Your task to perform on an android device: turn on data saver in the chrome app Image 0: 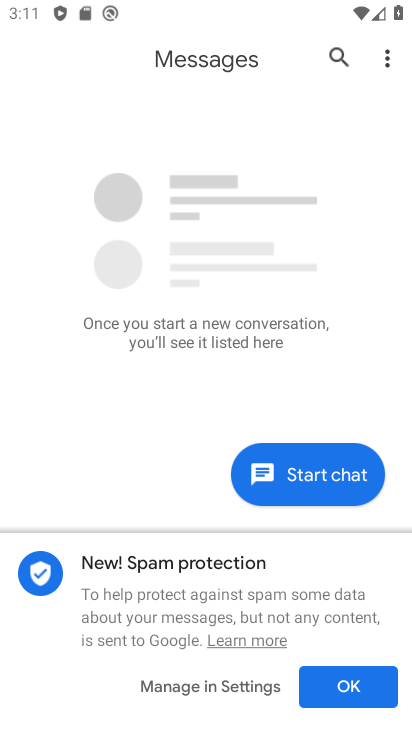
Step 0: press back button
Your task to perform on an android device: turn on data saver in the chrome app Image 1: 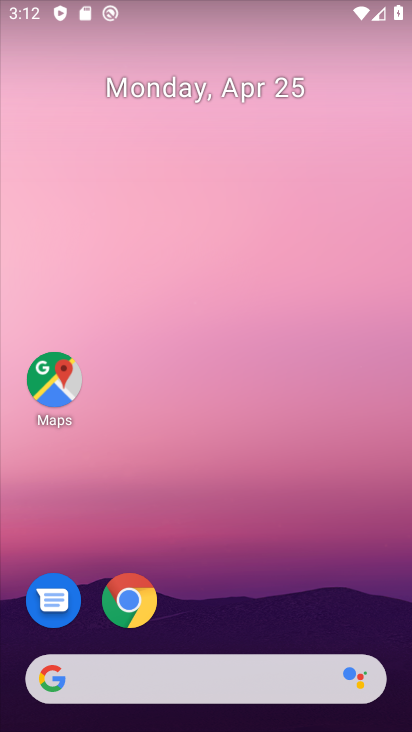
Step 1: drag from (194, 553) to (205, 32)
Your task to perform on an android device: turn on data saver in the chrome app Image 2: 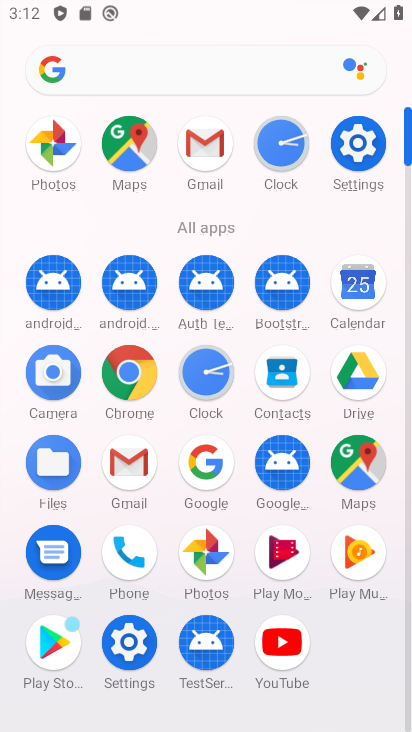
Step 2: drag from (2, 501) to (6, 132)
Your task to perform on an android device: turn on data saver in the chrome app Image 3: 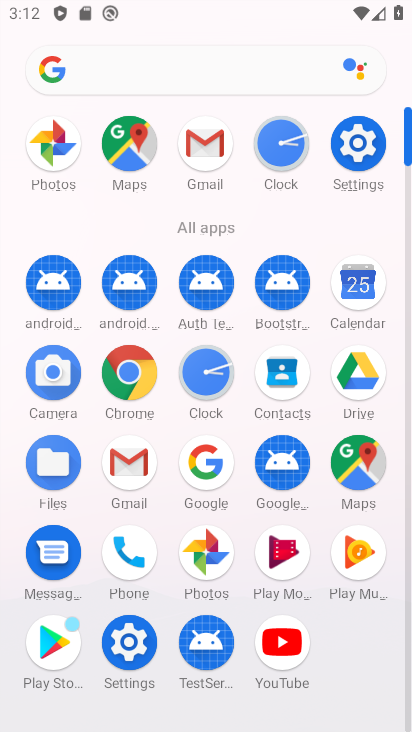
Step 3: click (131, 374)
Your task to perform on an android device: turn on data saver in the chrome app Image 4: 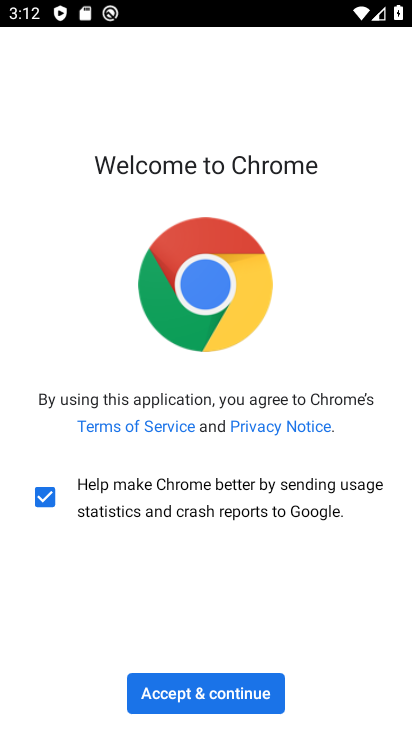
Step 4: click (236, 690)
Your task to perform on an android device: turn on data saver in the chrome app Image 5: 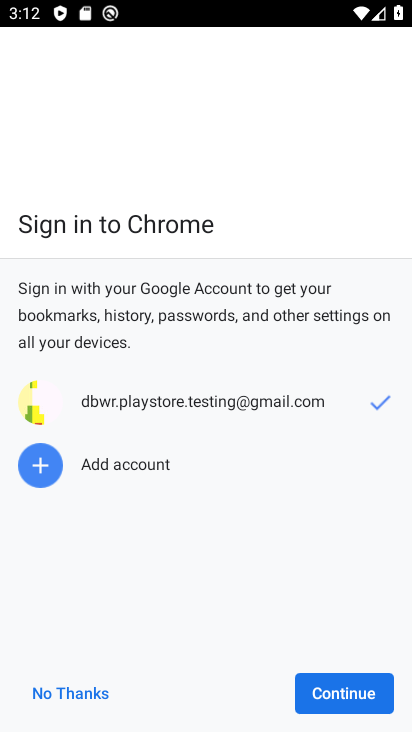
Step 5: click (315, 689)
Your task to perform on an android device: turn on data saver in the chrome app Image 6: 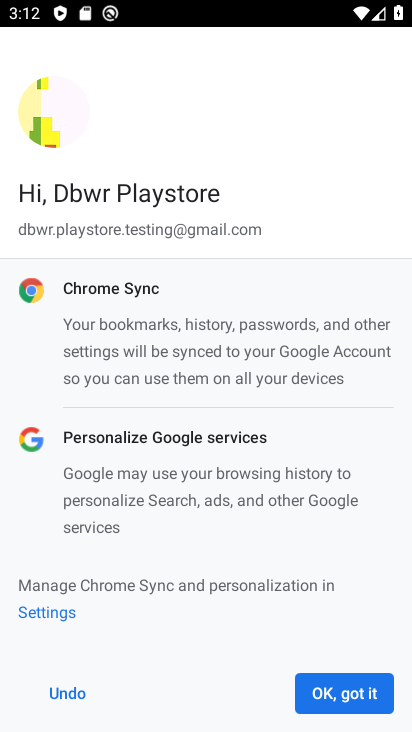
Step 6: click (349, 703)
Your task to perform on an android device: turn on data saver in the chrome app Image 7: 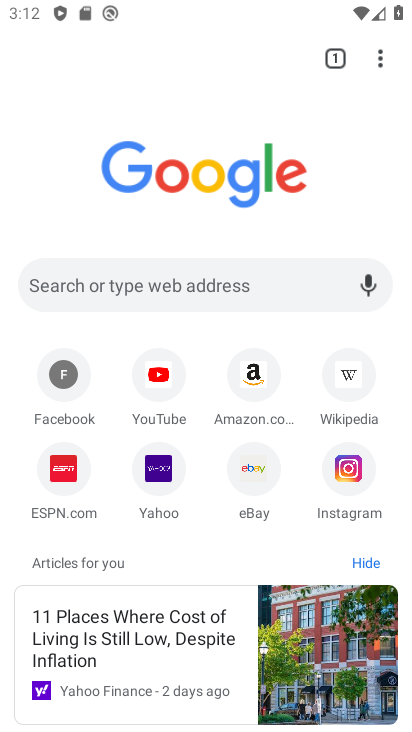
Step 7: click (251, 278)
Your task to perform on an android device: turn on data saver in the chrome app Image 8: 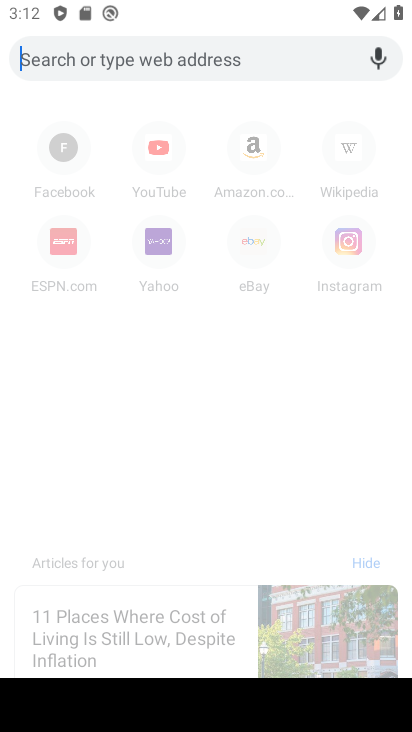
Step 8: press back button
Your task to perform on an android device: turn on data saver in the chrome app Image 9: 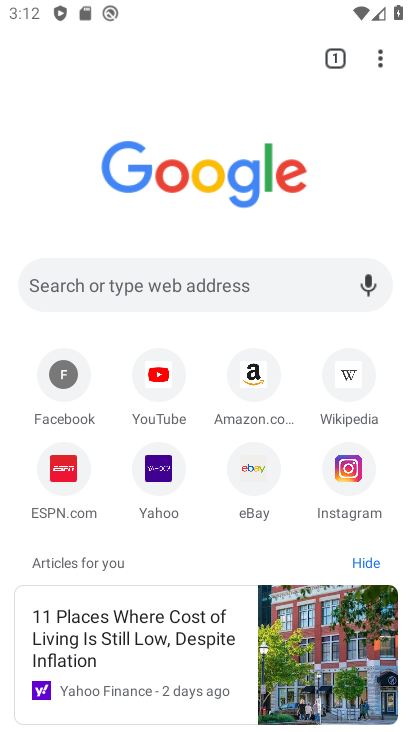
Step 9: drag from (380, 57) to (186, 494)
Your task to perform on an android device: turn on data saver in the chrome app Image 10: 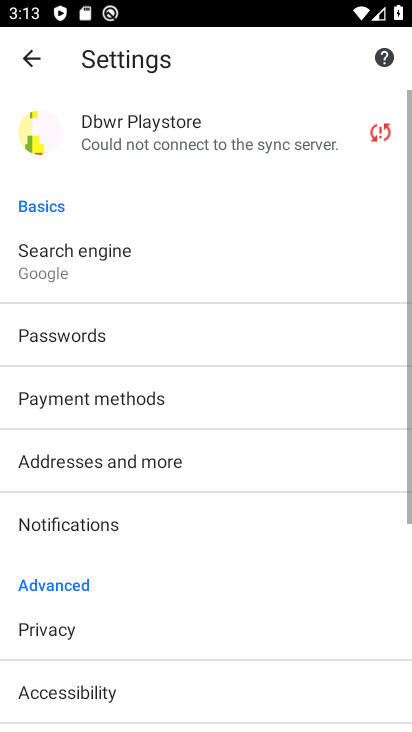
Step 10: drag from (231, 569) to (237, 110)
Your task to perform on an android device: turn on data saver in the chrome app Image 11: 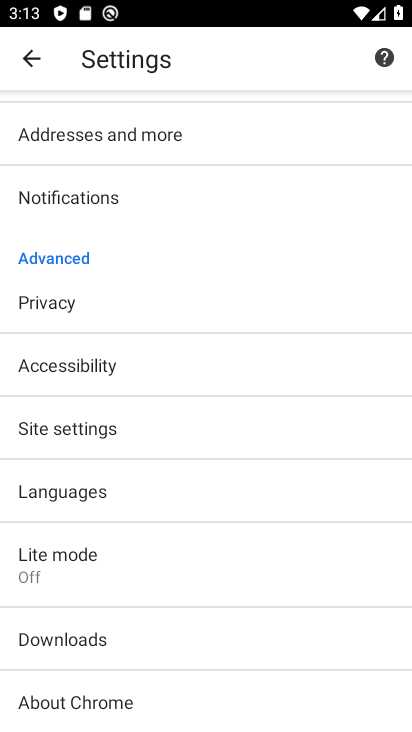
Step 11: drag from (202, 529) to (214, 163)
Your task to perform on an android device: turn on data saver in the chrome app Image 12: 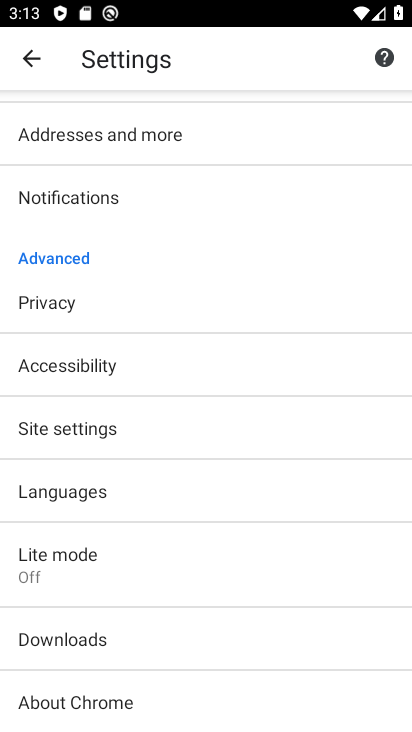
Step 12: drag from (203, 569) to (226, 183)
Your task to perform on an android device: turn on data saver in the chrome app Image 13: 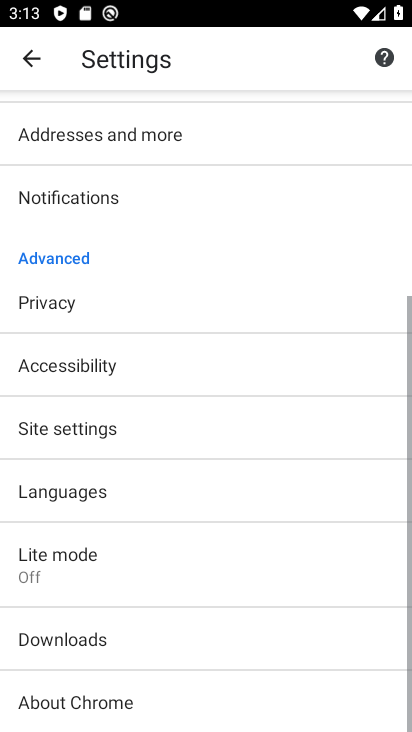
Step 13: click (108, 565)
Your task to perform on an android device: turn on data saver in the chrome app Image 14: 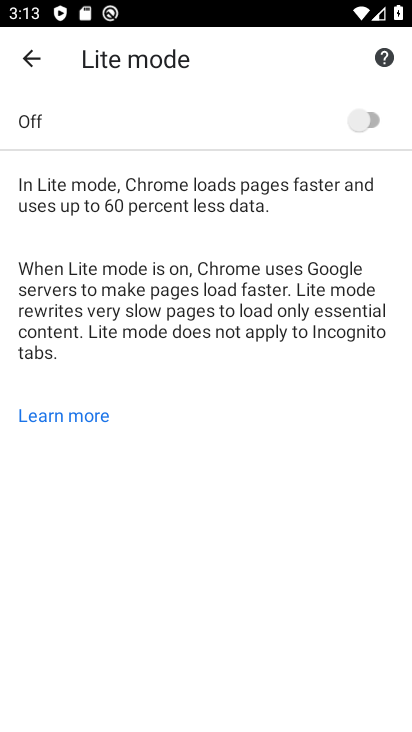
Step 14: click (374, 118)
Your task to perform on an android device: turn on data saver in the chrome app Image 15: 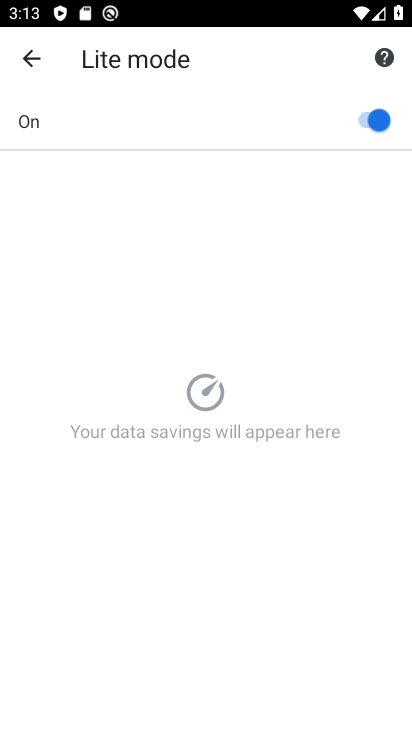
Step 15: task complete